Your task to perform on an android device: Go to accessibility settings Image 0: 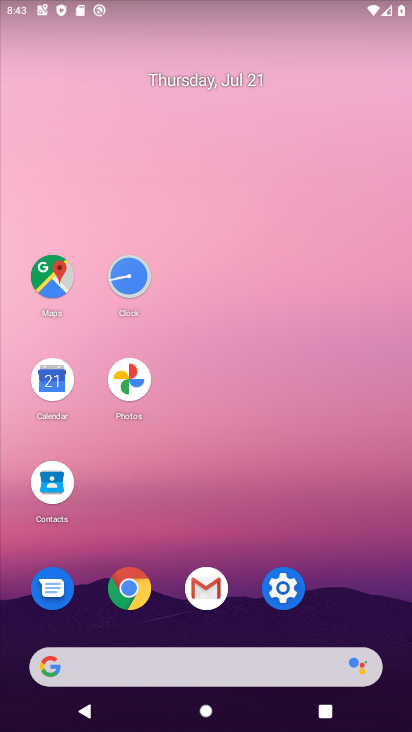
Step 0: click (282, 589)
Your task to perform on an android device: Go to accessibility settings Image 1: 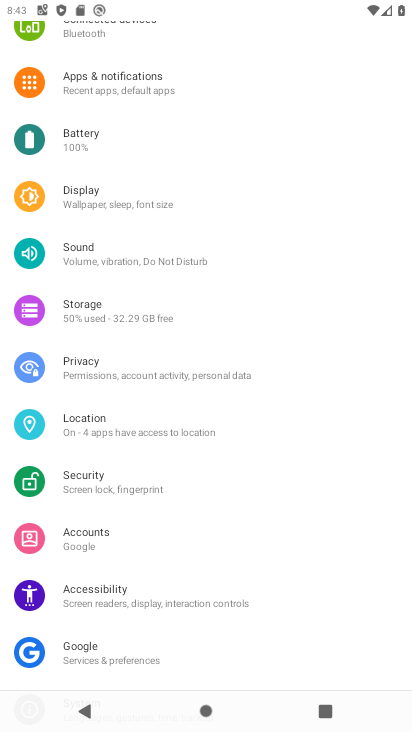
Step 1: click (93, 587)
Your task to perform on an android device: Go to accessibility settings Image 2: 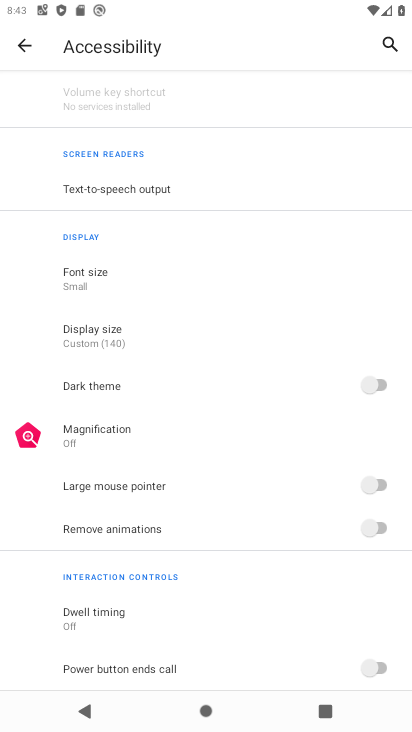
Step 2: task complete